Your task to perform on an android device: Check the news Image 0: 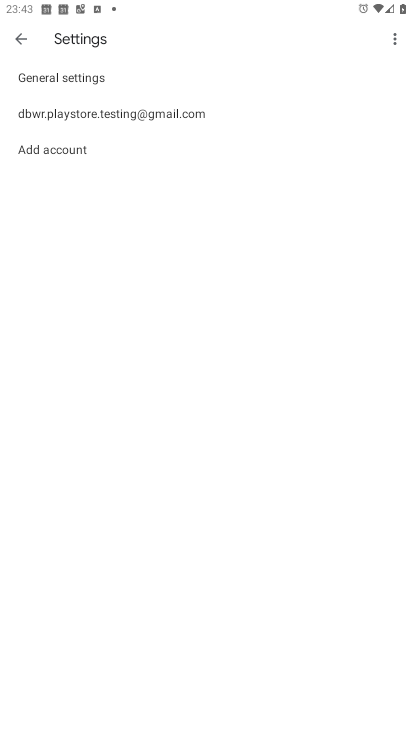
Step 0: press home button
Your task to perform on an android device: Check the news Image 1: 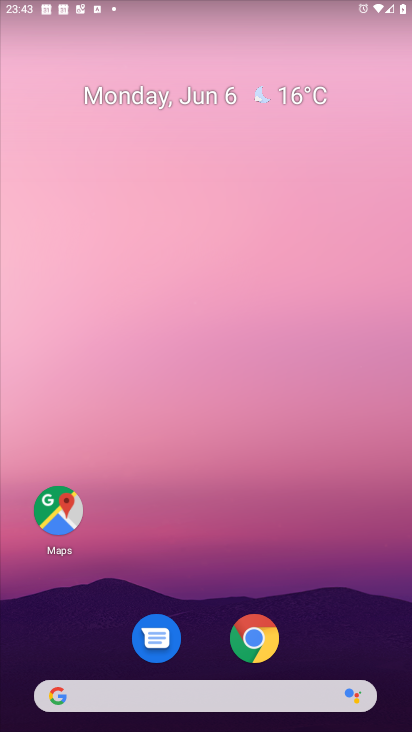
Step 1: drag from (215, 710) to (262, 201)
Your task to perform on an android device: Check the news Image 2: 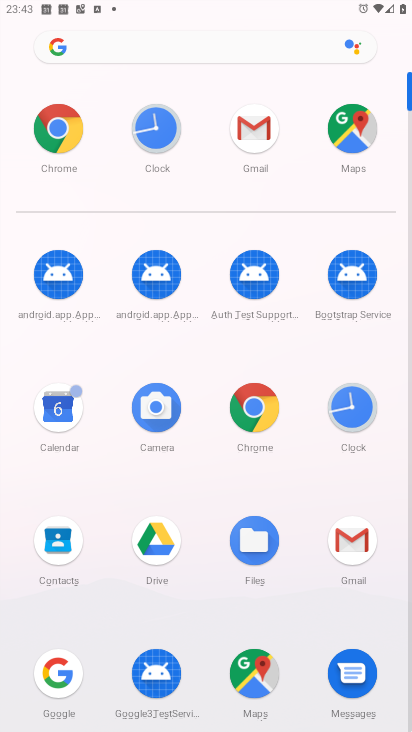
Step 2: click (98, 42)
Your task to perform on an android device: Check the news Image 3: 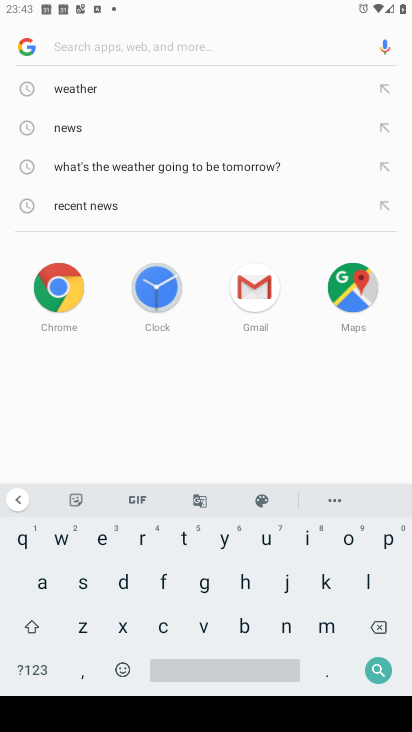
Step 3: click (102, 118)
Your task to perform on an android device: Check the news Image 4: 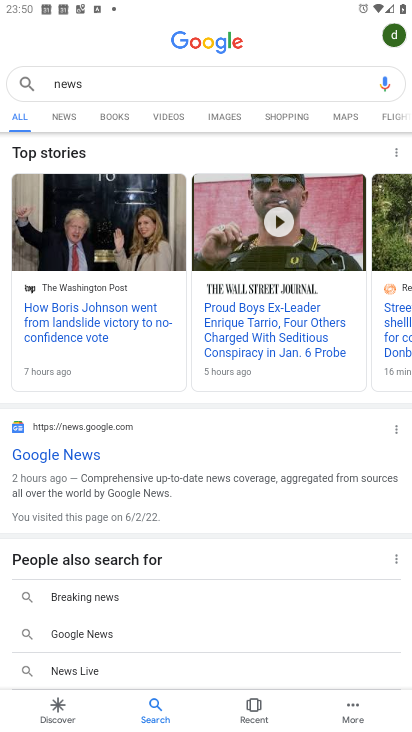
Step 4: task complete